Your task to perform on an android device: Show me recent news Image 0: 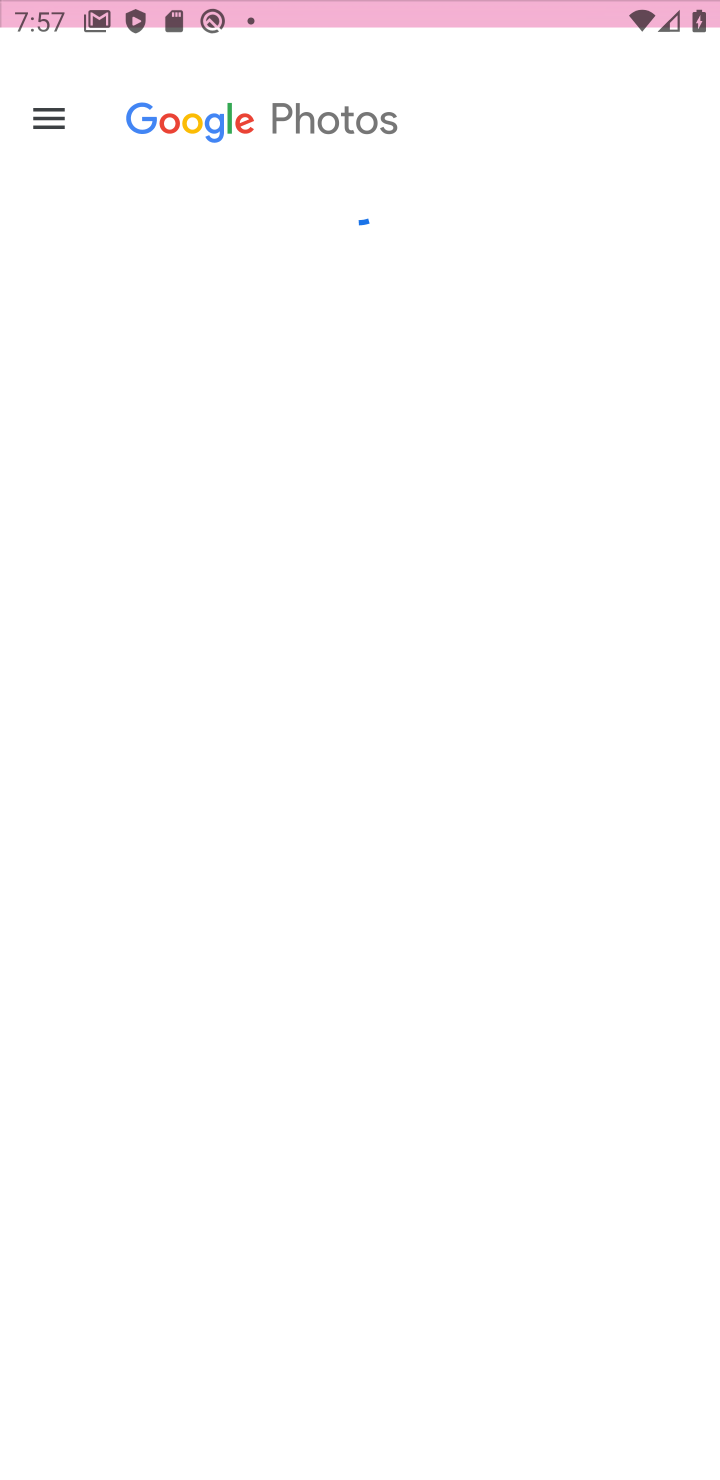
Step 0: press home button
Your task to perform on an android device: Show me recent news Image 1: 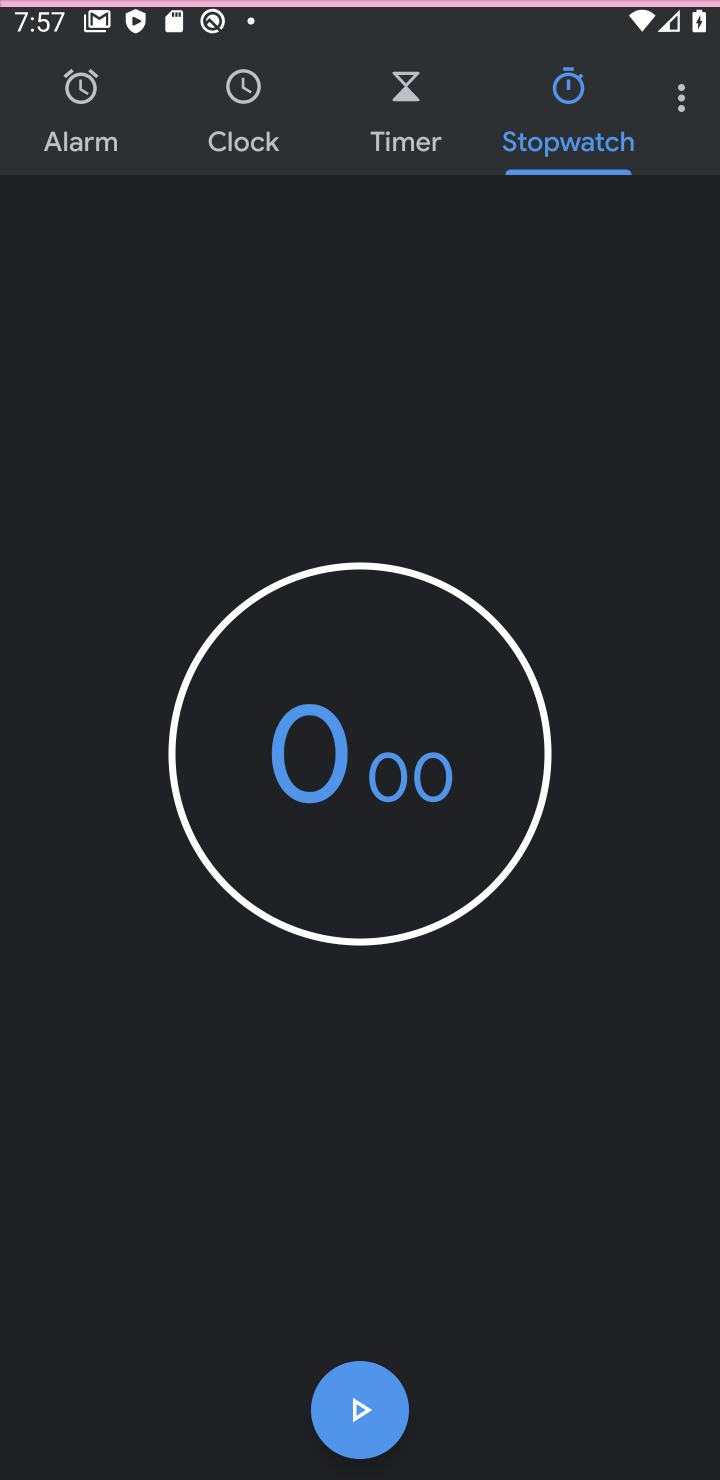
Step 1: press home button
Your task to perform on an android device: Show me recent news Image 2: 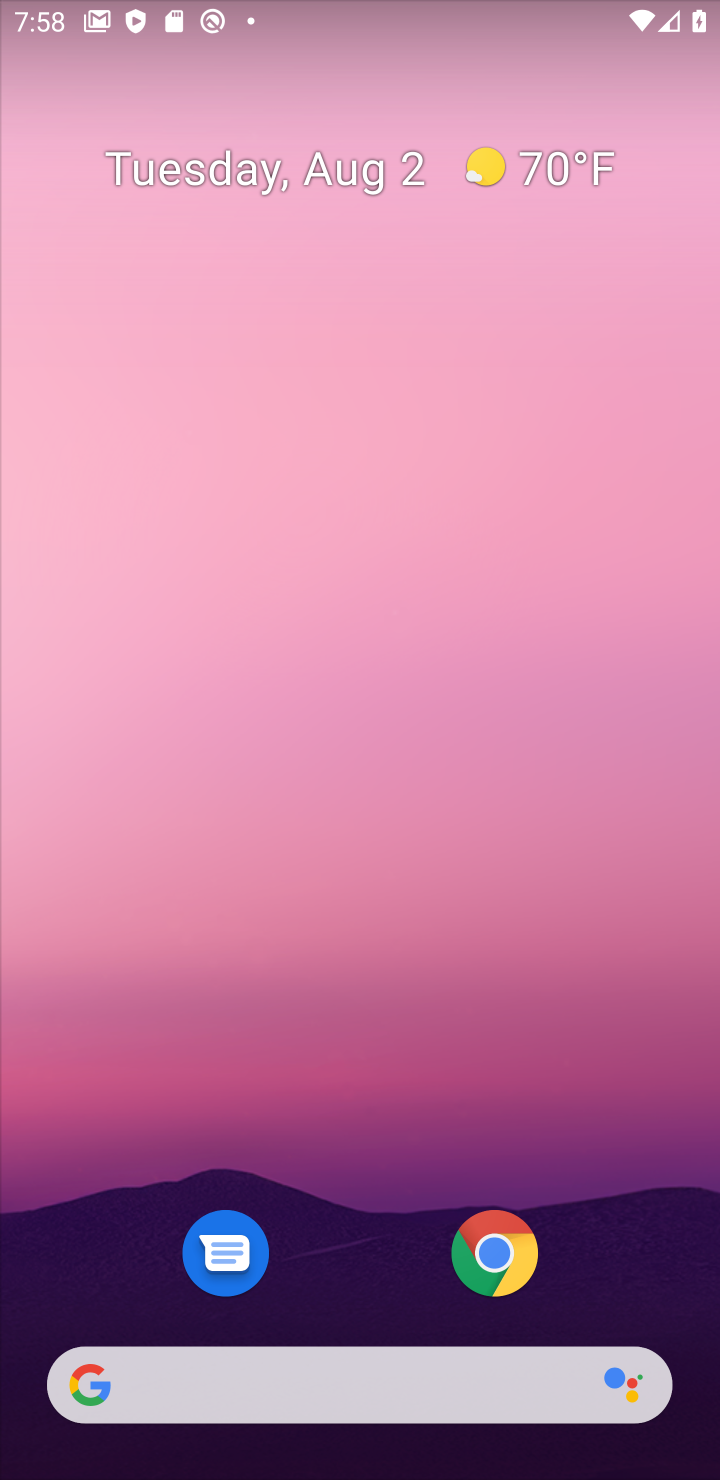
Step 2: click (100, 1387)
Your task to perform on an android device: Show me recent news Image 3: 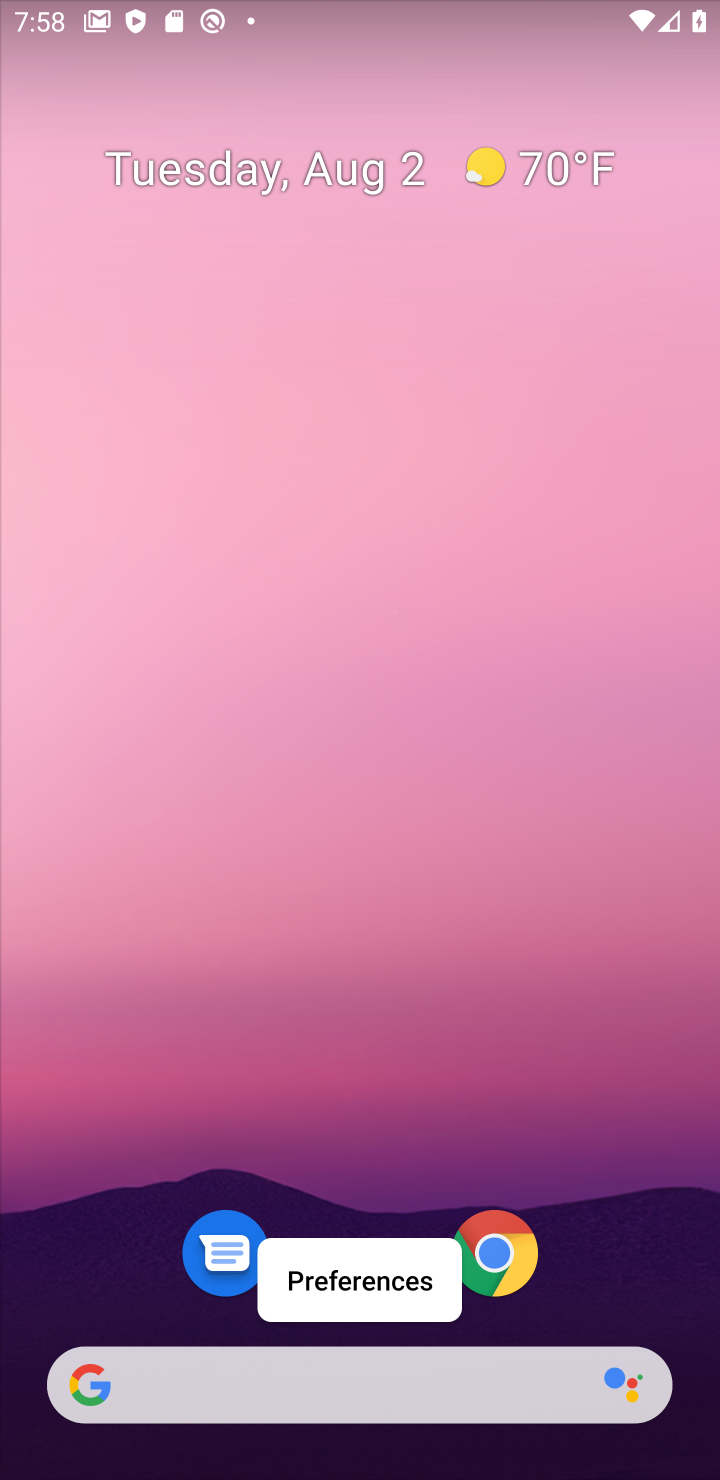
Step 3: click (110, 1389)
Your task to perform on an android device: Show me recent news Image 4: 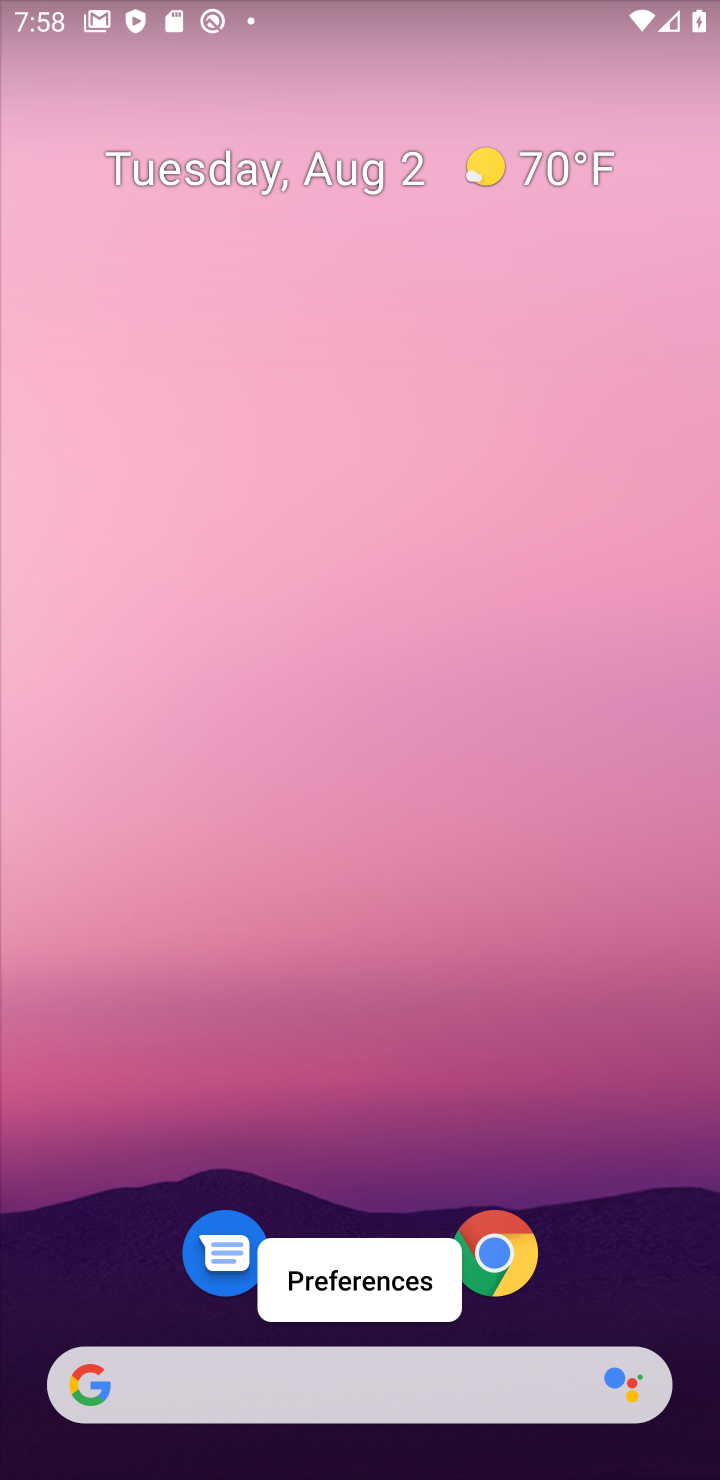
Step 4: click (130, 1368)
Your task to perform on an android device: Show me recent news Image 5: 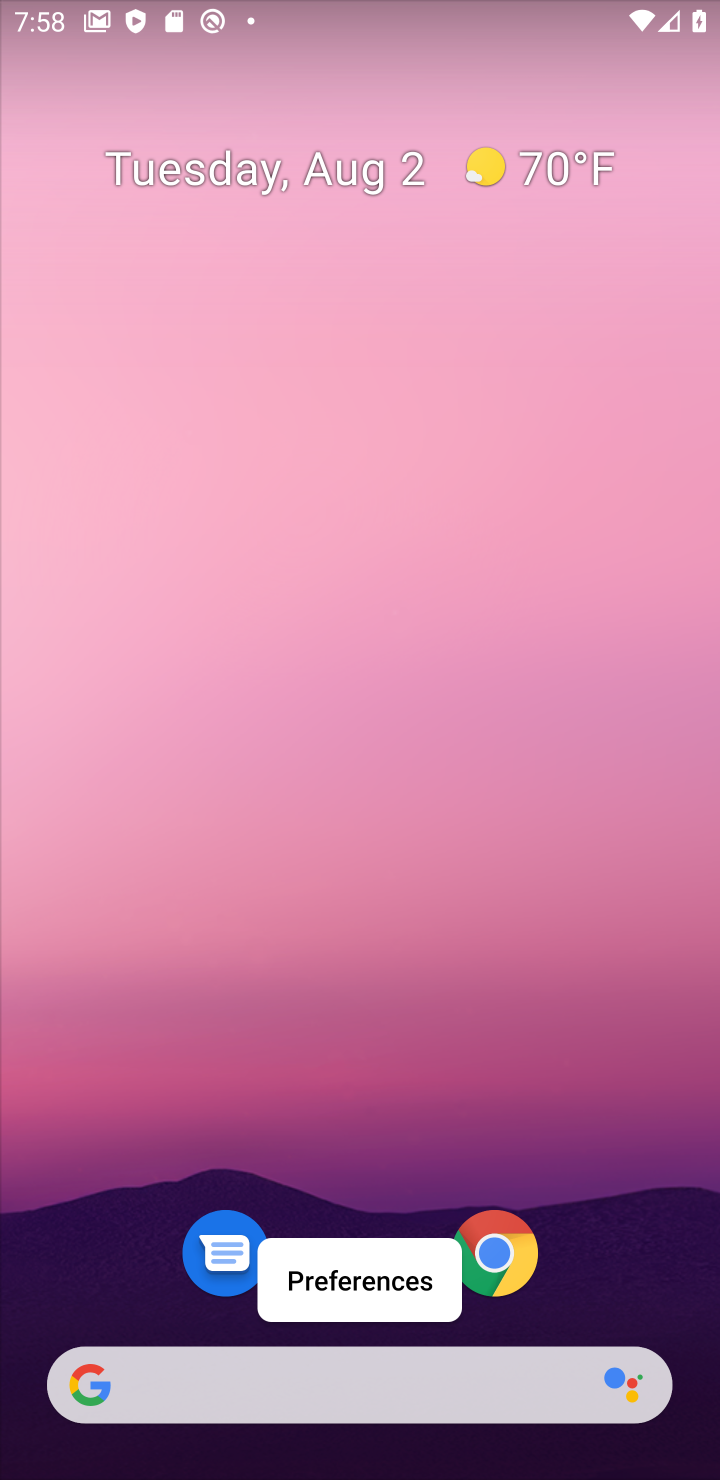
Step 5: click (237, 1378)
Your task to perform on an android device: Show me recent news Image 6: 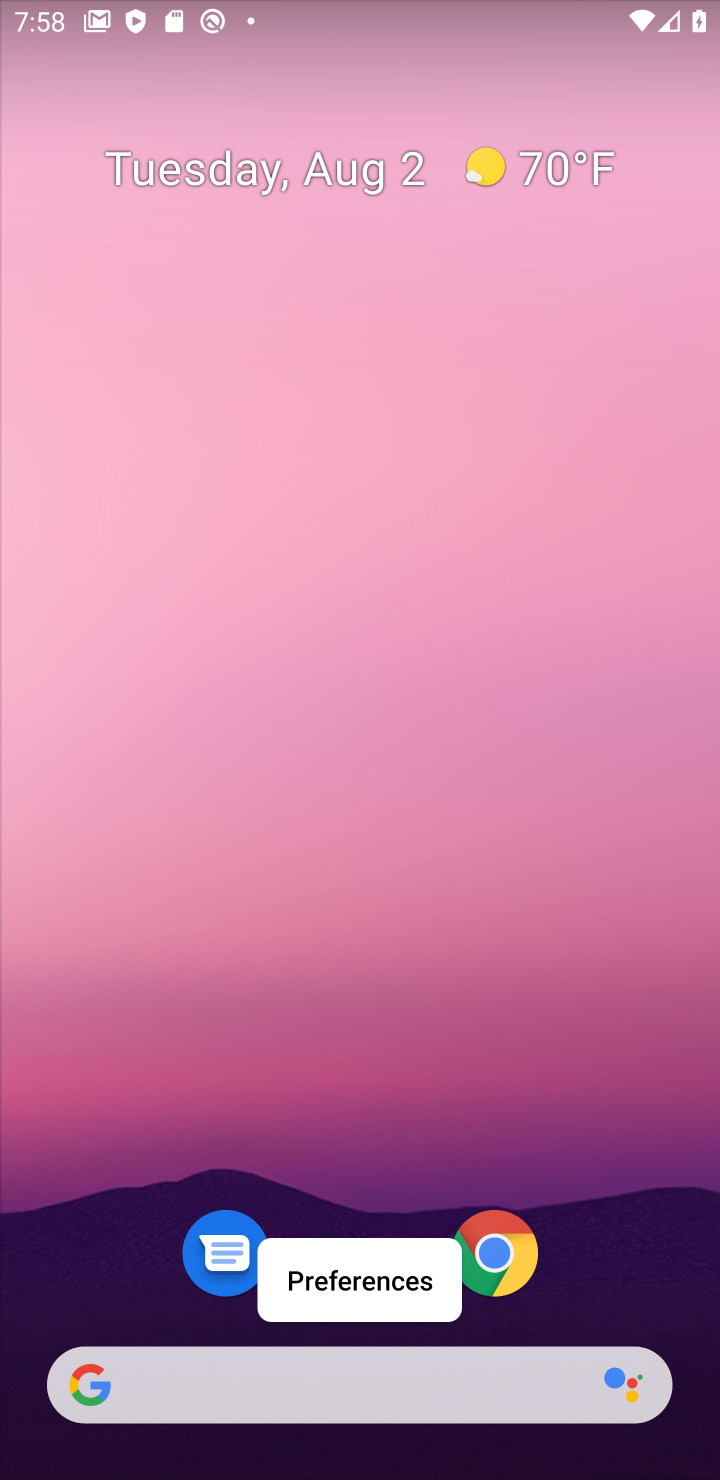
Step 6: click (311, 1374)
Your task to perform on an android device: Show me recent news Image 7: 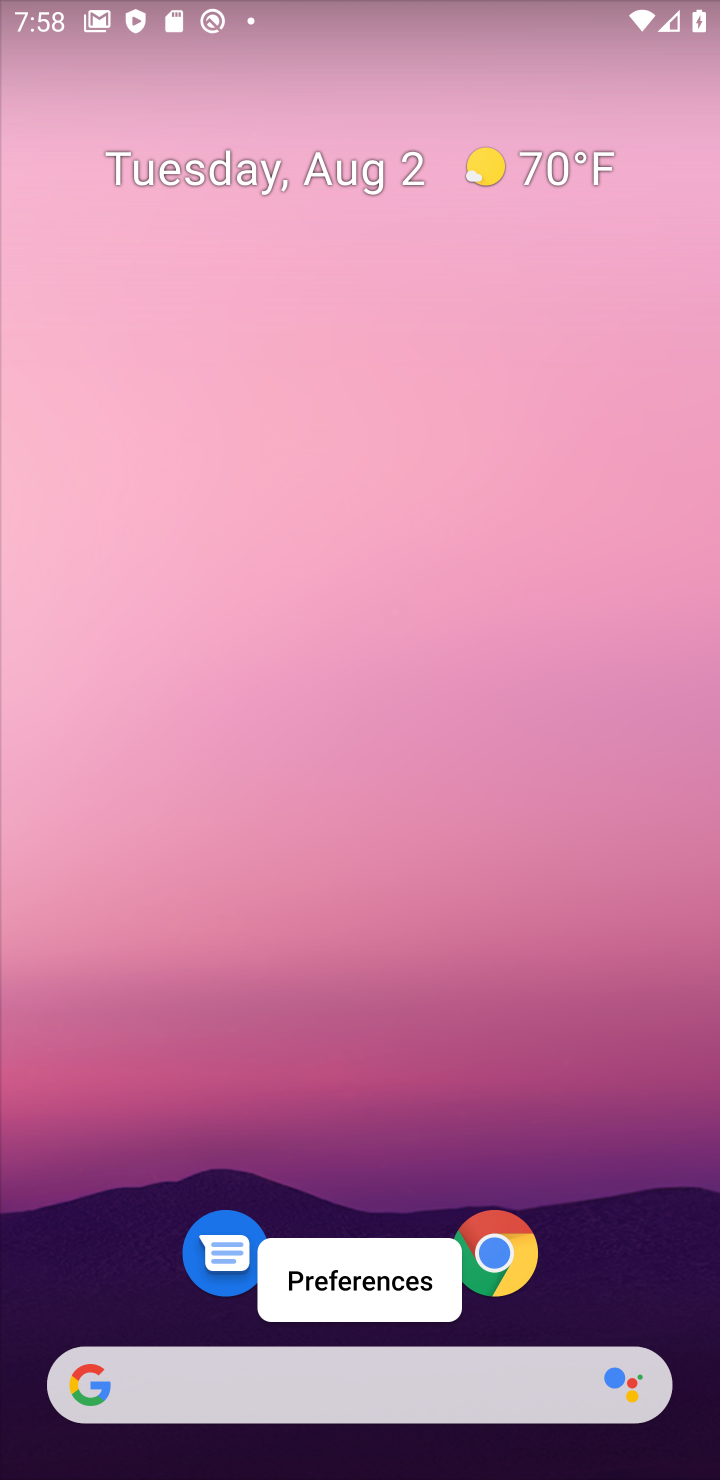
Step 7: drag from (311, 1374) to (383, 789)
Your task to perform on an android device: Show me recent news Image 8: 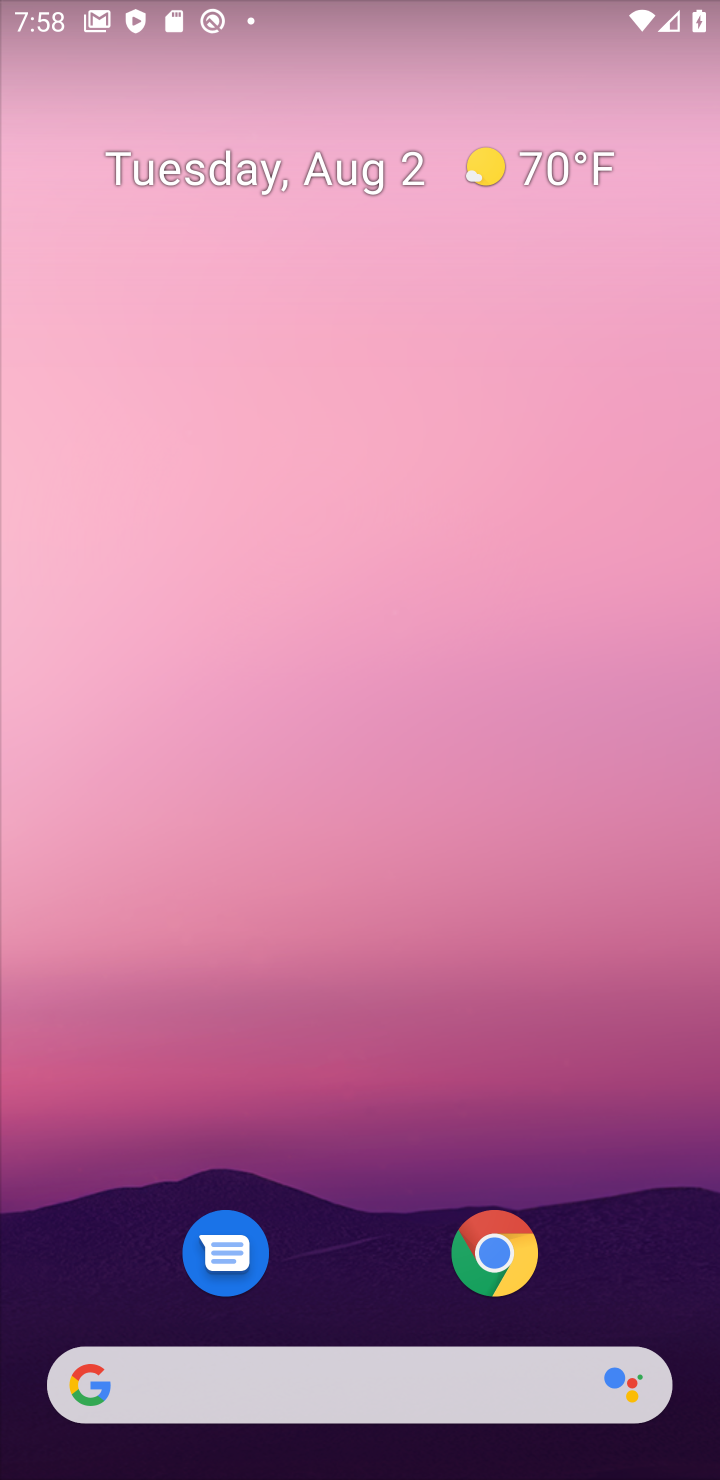
Step 8: click (101, 1381)
Your task to perform on an android device: Show me recent news Image 9: 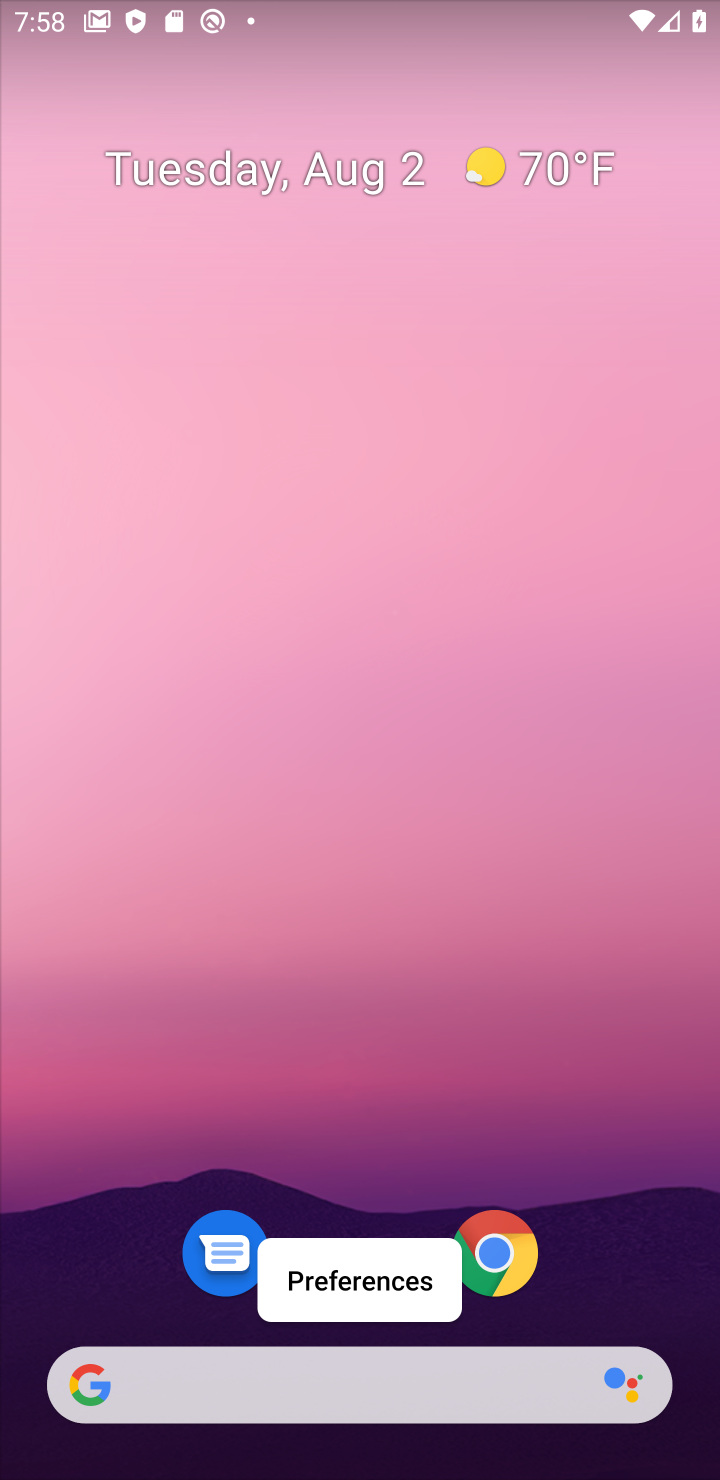
Step 9: click (101, 1383)
Your task to perform on an android device: Show me recent news Image 10: 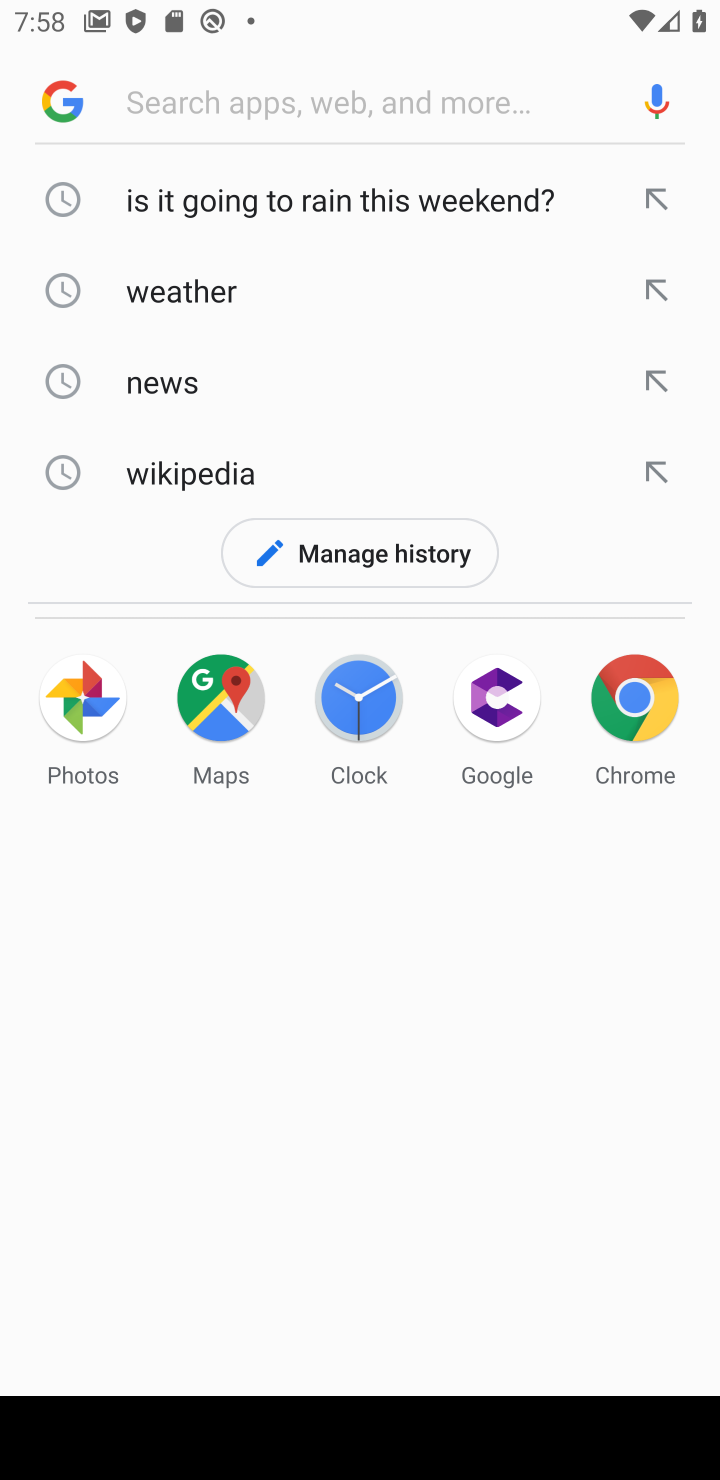
Step 10: click (211, 379)
Your task to perform on an android device: Show me recent news Image 11: 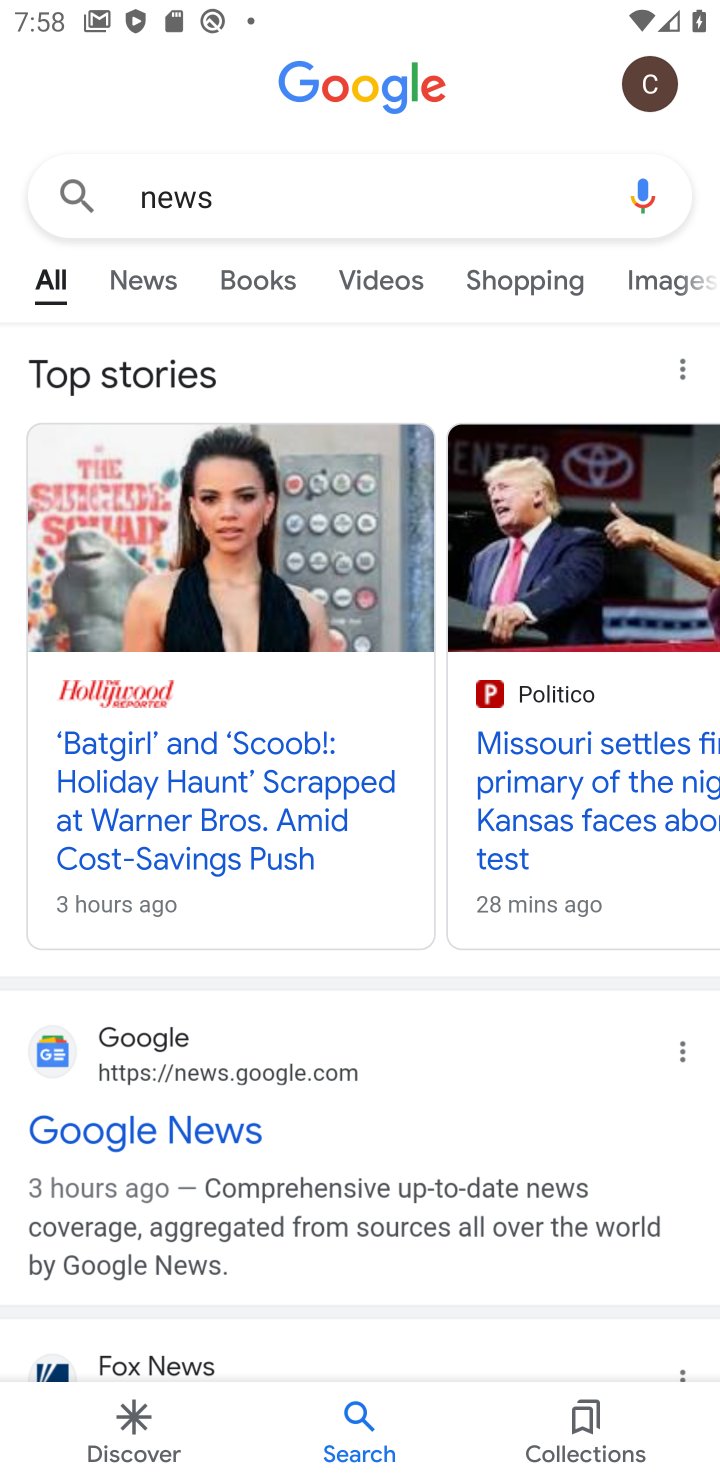
Step 11: click (148, 280)
Your task to perform on an android device: Show me recent news Image 12: 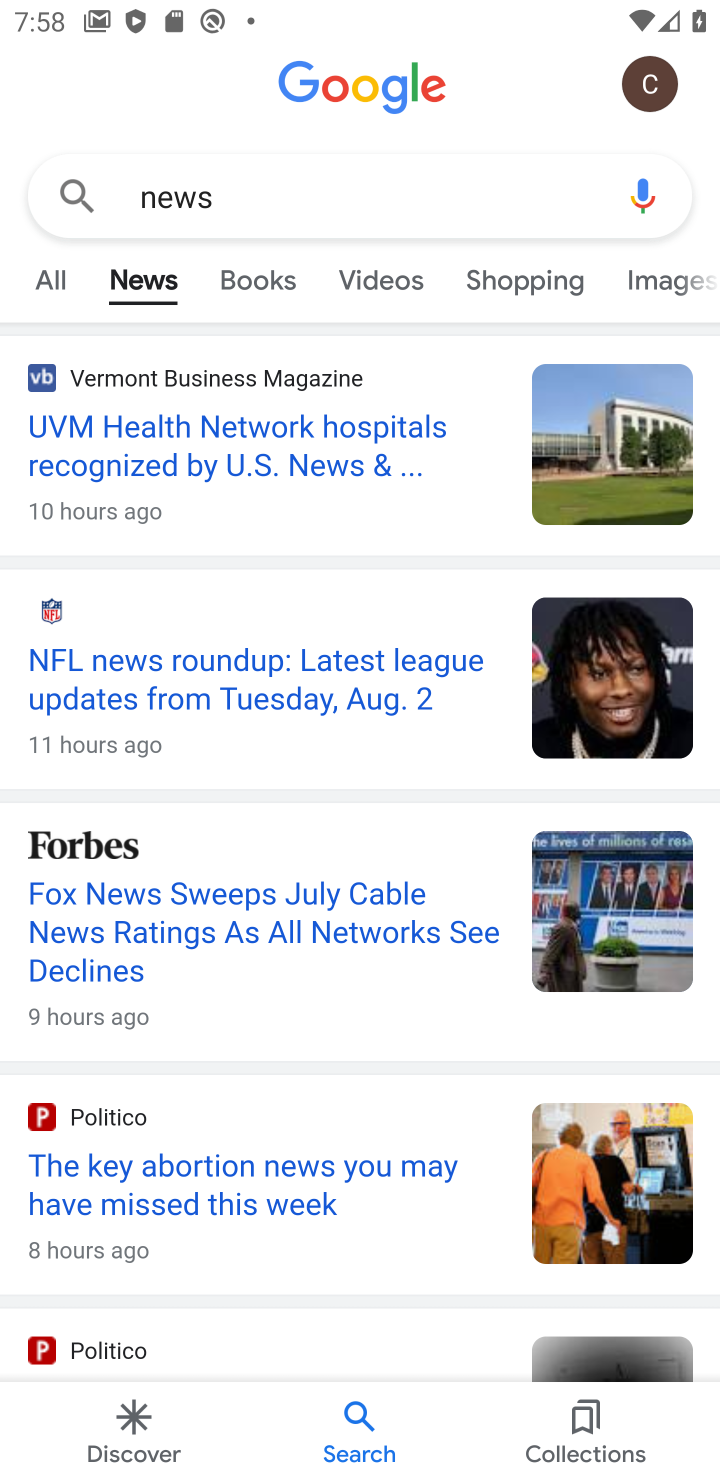
Step 12: task complete